Your task to perform on an android device: See recent photos Image 0: 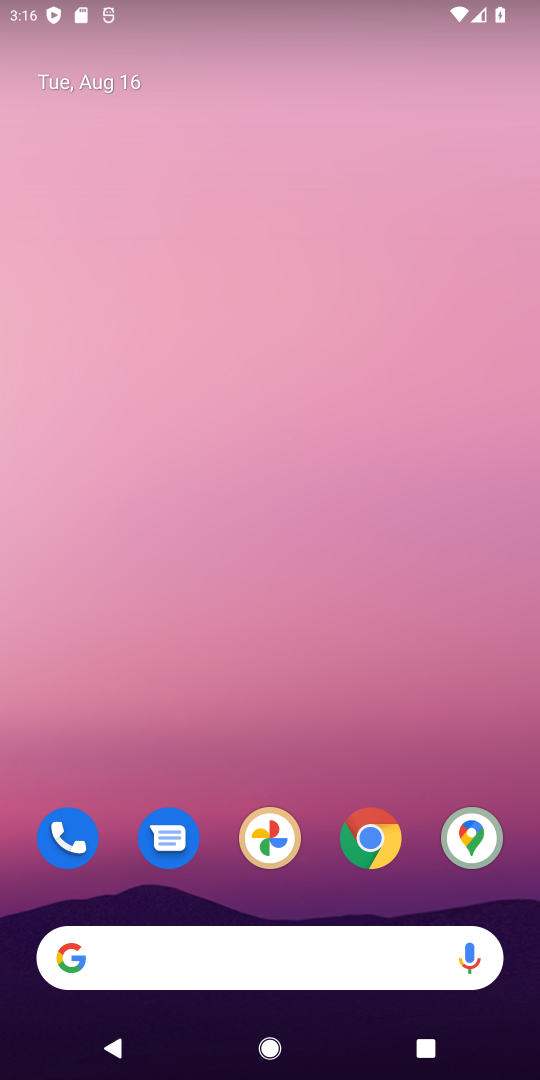
Step 0: drag from (292, 899) to (149, 32)
Your task to perform on an android device: See recent photos Image 1: 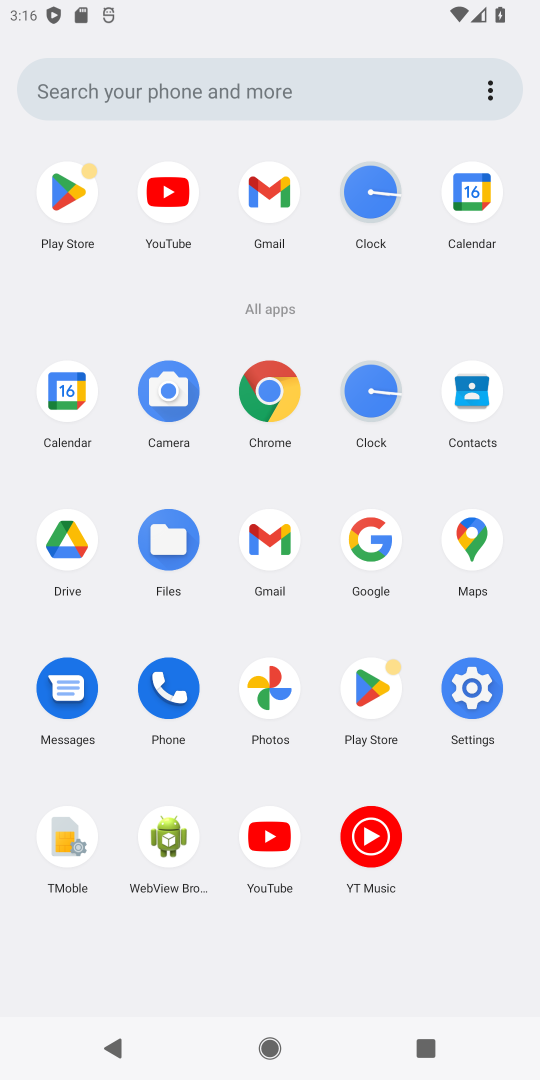
Step 1: click (271, 695)
Your task to perform on an android device: See recent photos Image 2: 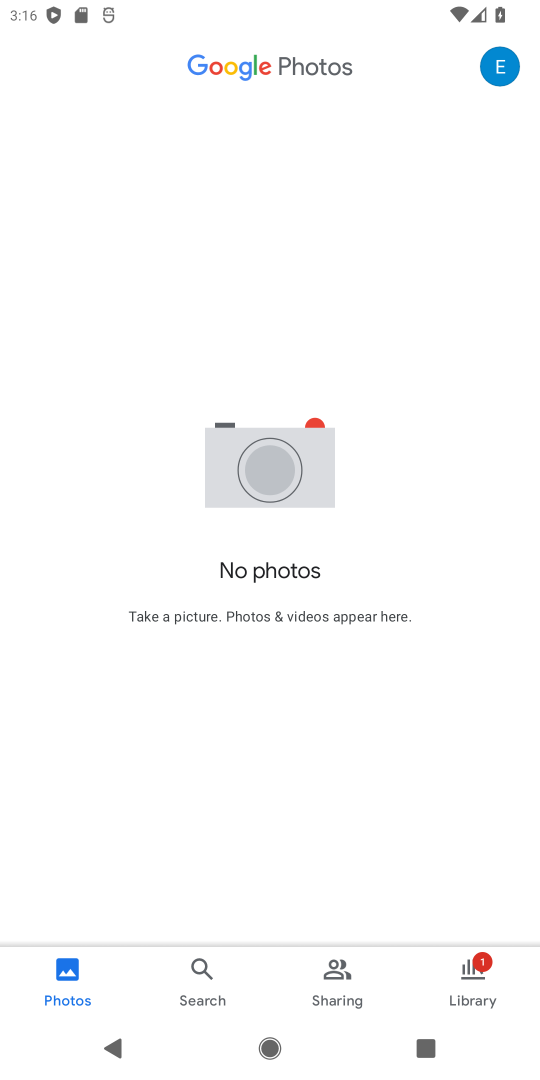
Step 2: drag from (311, 244) to (272, 776)
Your task to perform on an android device: See recent photos Image 3: 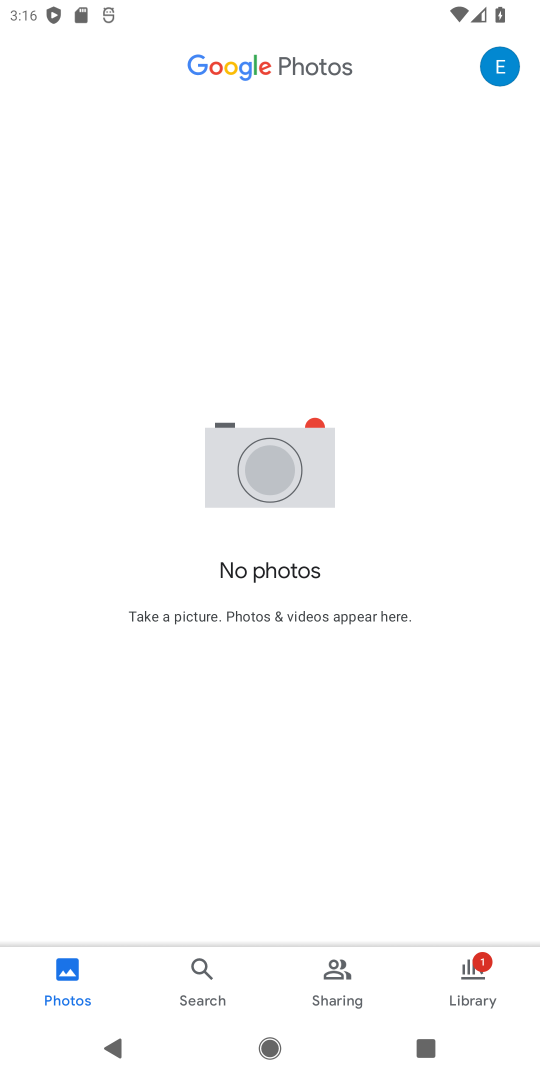
Step 3: click (72, 975)
Your task to perform on an android device: See recent photos Image 4: 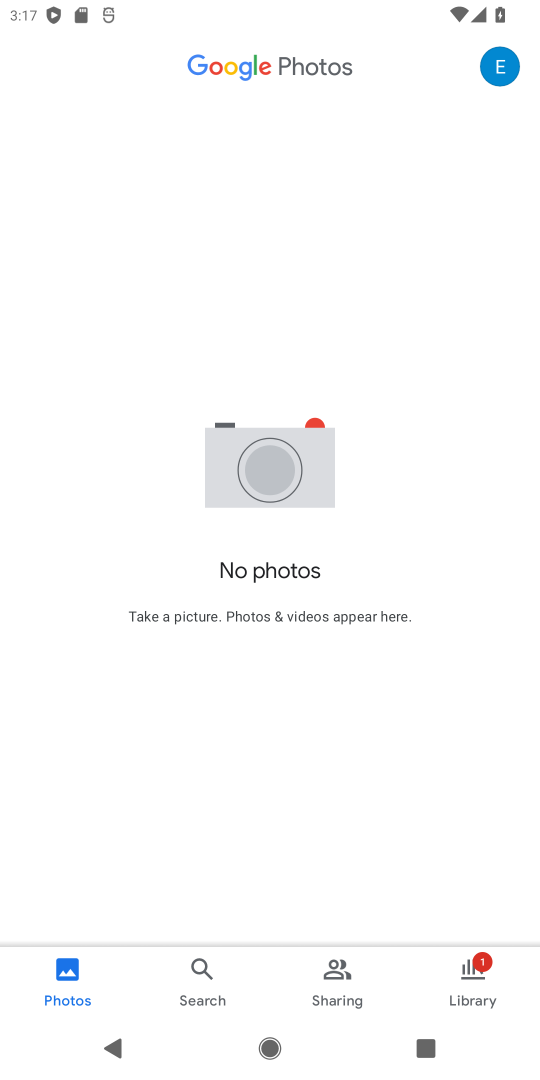
Step 4: task complete